Your task to perform on an android device: turn off notifications settings in the gmail app Image 0: 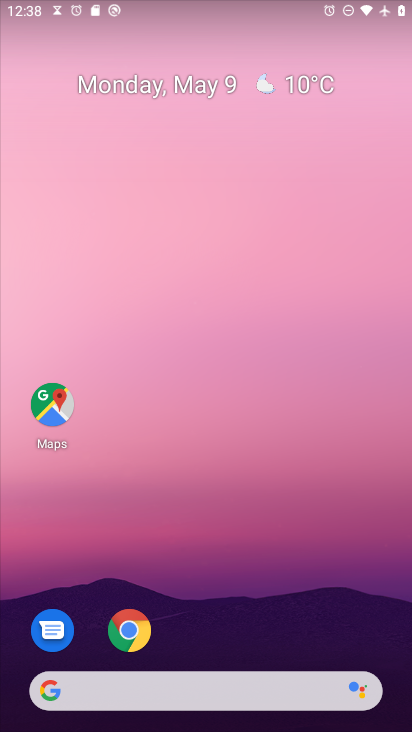
Step 0: drag from (181, 691) to (331, 122)
Your task to perform on an android device: turn off notifications settings in the gmail app Image 1: 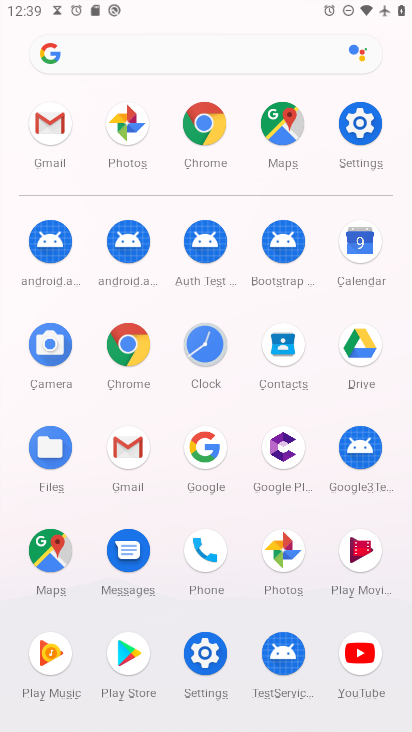
Step 1: click (133, 448)
Your task to perform on an android device: turn off notifications settings in the gmail app Image 2: 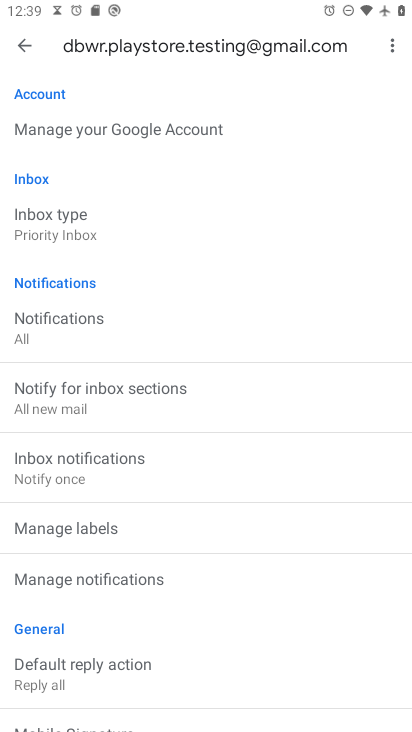
Step 2: click (49, 321)
Your task to perform on an android device: turn off notifications settings in the gmail app Image 3: 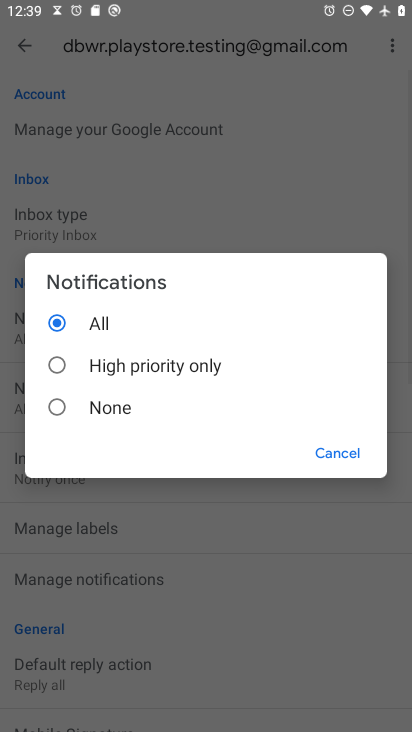
Step 3: click (57, 404)
Your task to perform on an android device: turn off notifications settings in the gmail app Image 4: 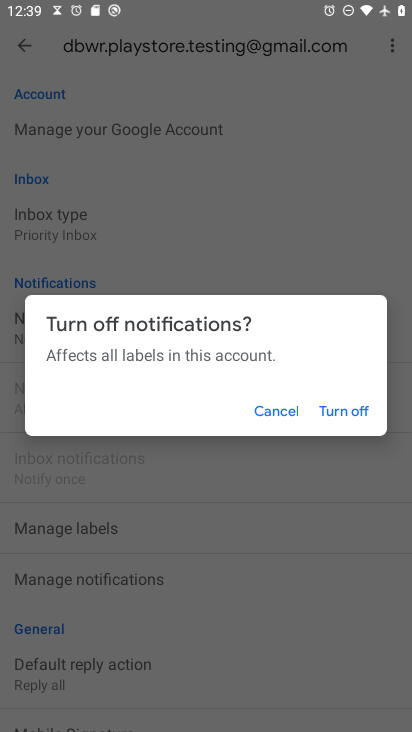
Step 4: click (336, 408)
Your task to perform on an android device: turn off notifications settings in the gmail app Image 5: 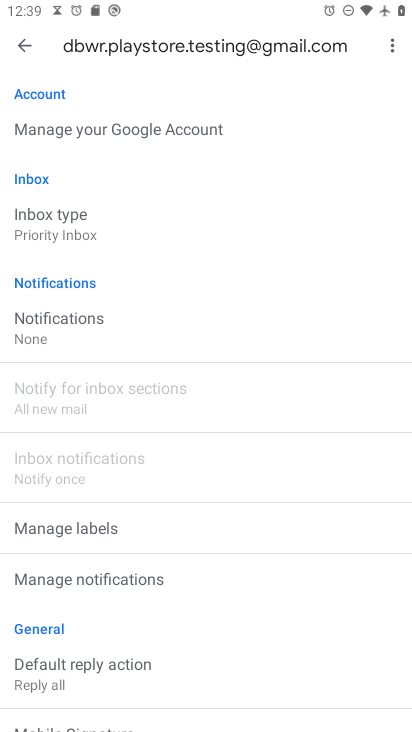
Step 5: task complete